Your task to perform on an android device: open app "Spotify" (install if not already installed) and go to login screen Image 0: 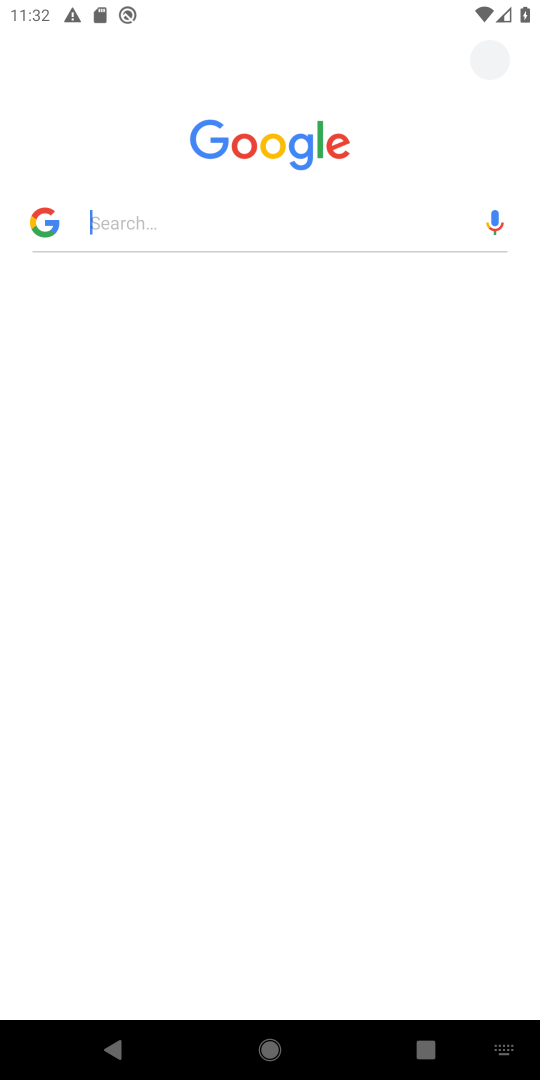
Step 0: drag from (263, 917) to (257, 706)
Your task to perform on an android device: open app "Spotify" (install if not already installed) and go to login screen Image 1: 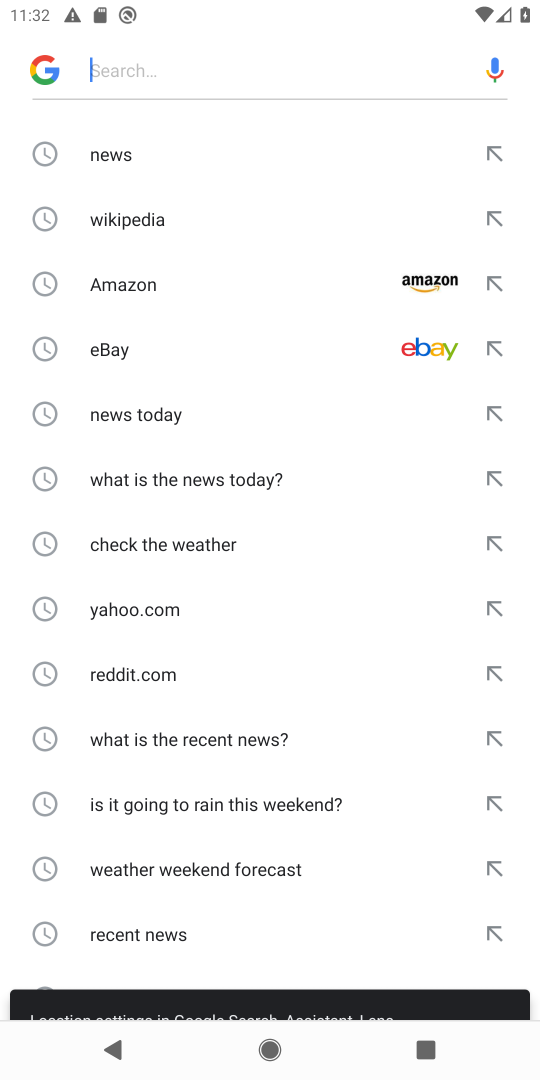
Step 1: press home button
Your task to perform on an android device: open app "Spotify" (install if not already installed) and go to login screen Image 2: 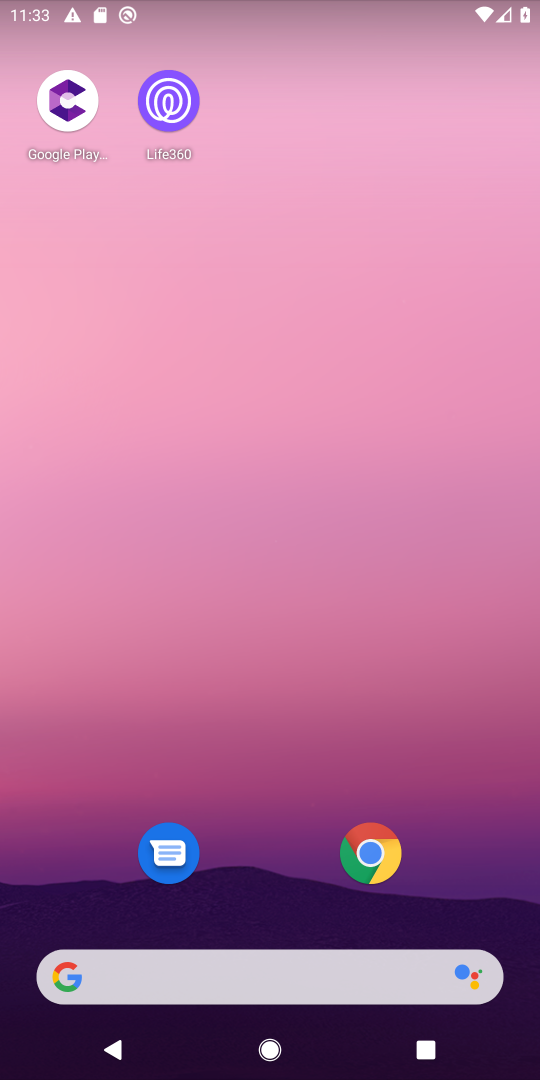
Step 2: drag from (247, 893) to (231, 281)
Your task to perform on an android device: open app "Spotify" (install if not already installed) and go to login screen Image 3: 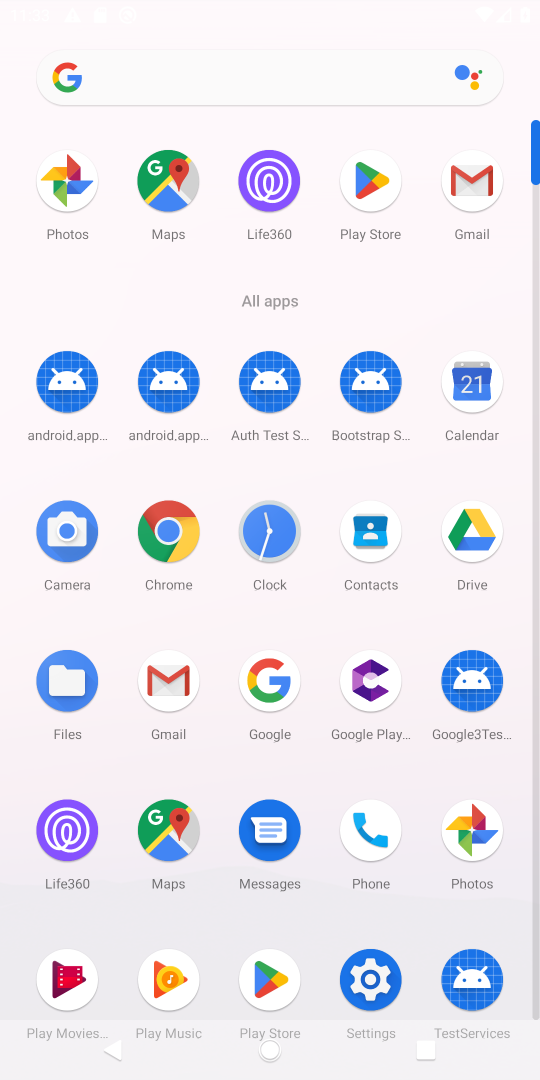
Step 3: click (358, 168)
Your task to perform on an android device: open app "Spotify" (install if not already installed) and go to login screen Image 4: 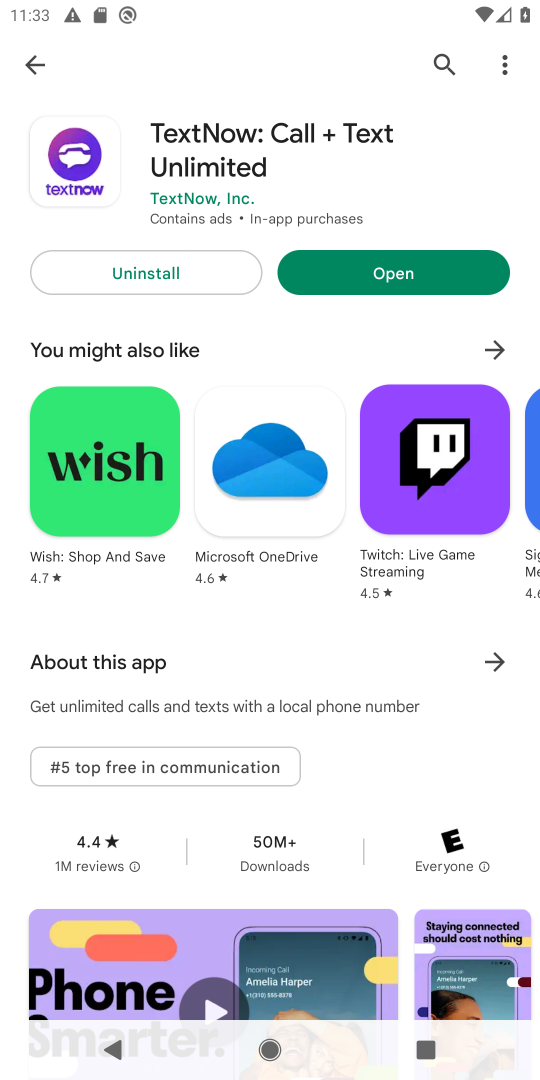
Step 4: click (30, 48)
Your task to perform on an android device: open app "Spotify" (install if not already installed) and go to login screen Image 5: 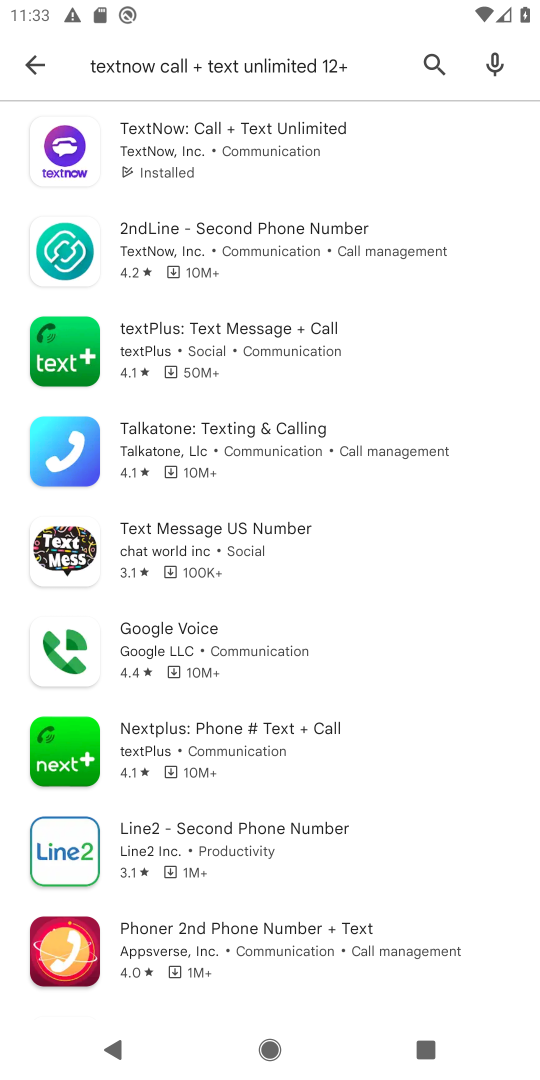
Step 5: click (47, 59)
Your task to perform on an android device: open app "Spotify" (install if not already installed) and go to login screen Image 6: 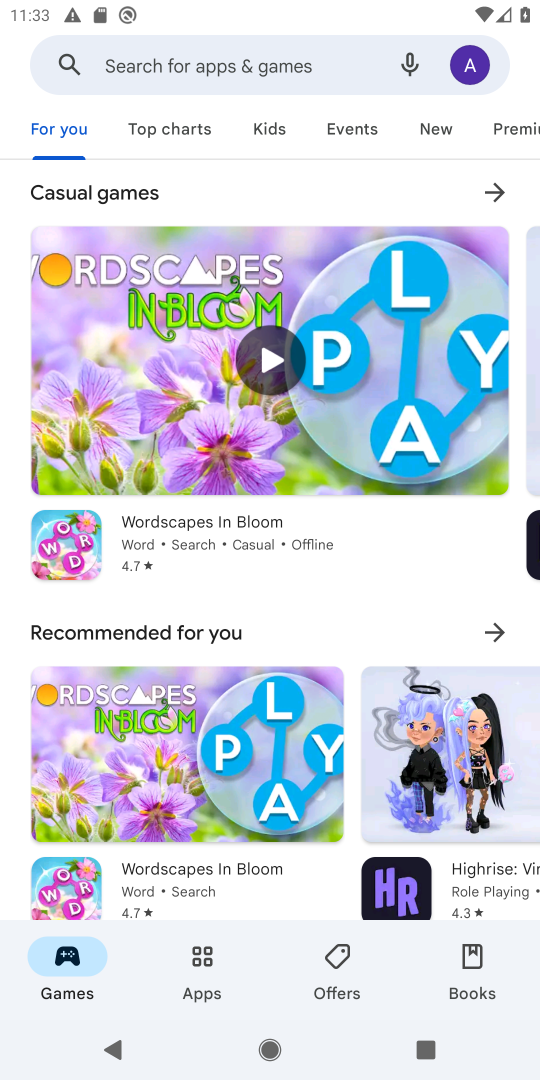
Step 6: click (216, 52)
Your task to perform on an android device: open app "Spotify" (install if not already installed) and go to login screen Image 7: 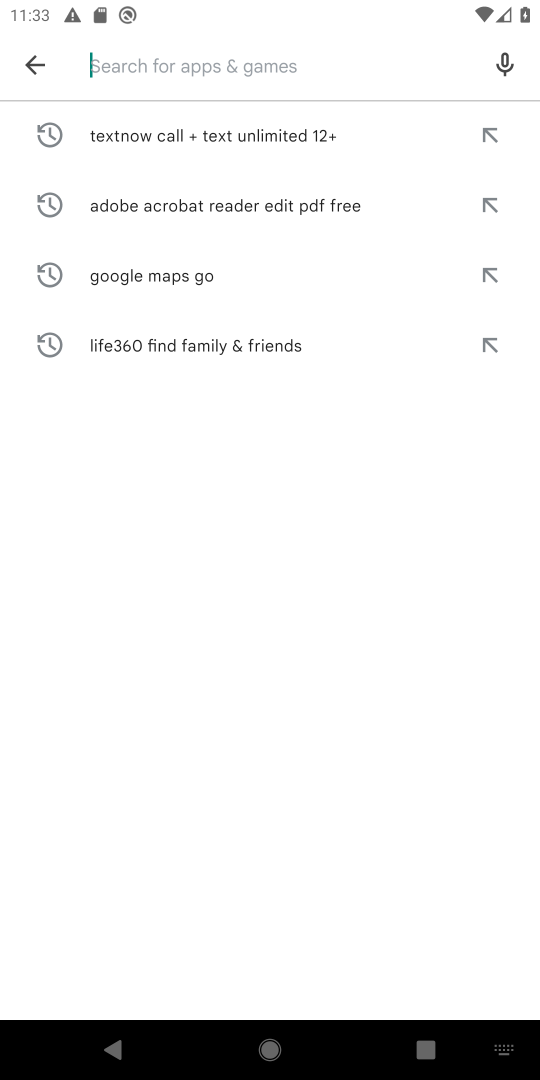
Step 7: type "spotify "
Your task to perform on an android device: open app "Spotify" (install if not already installed) and go to login screen Image 8: 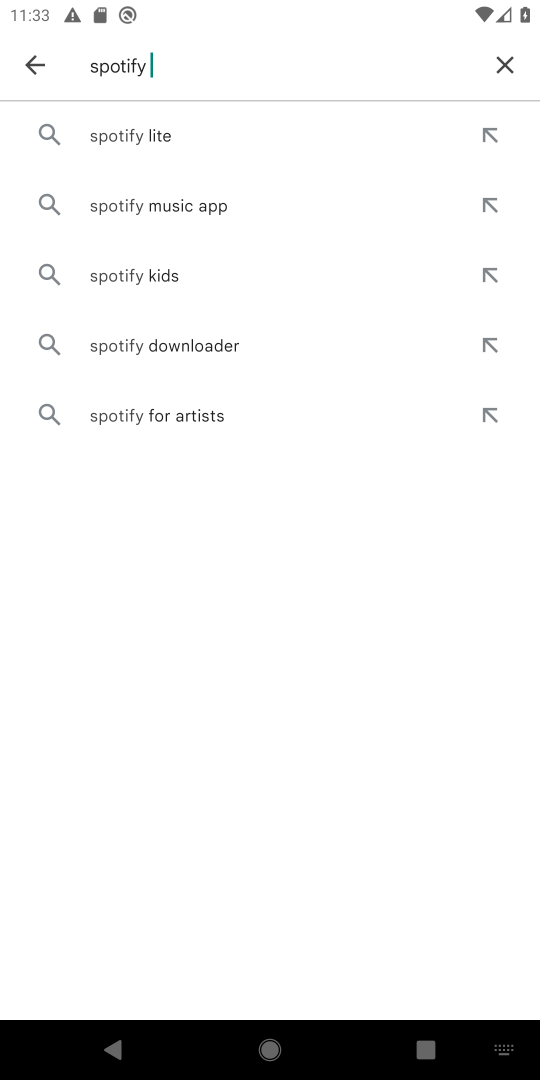
Step 8: click (194, 210)
Your task to perform on an android device: open app "Spotify" (install if not already installed) and go to login screen Image 9: 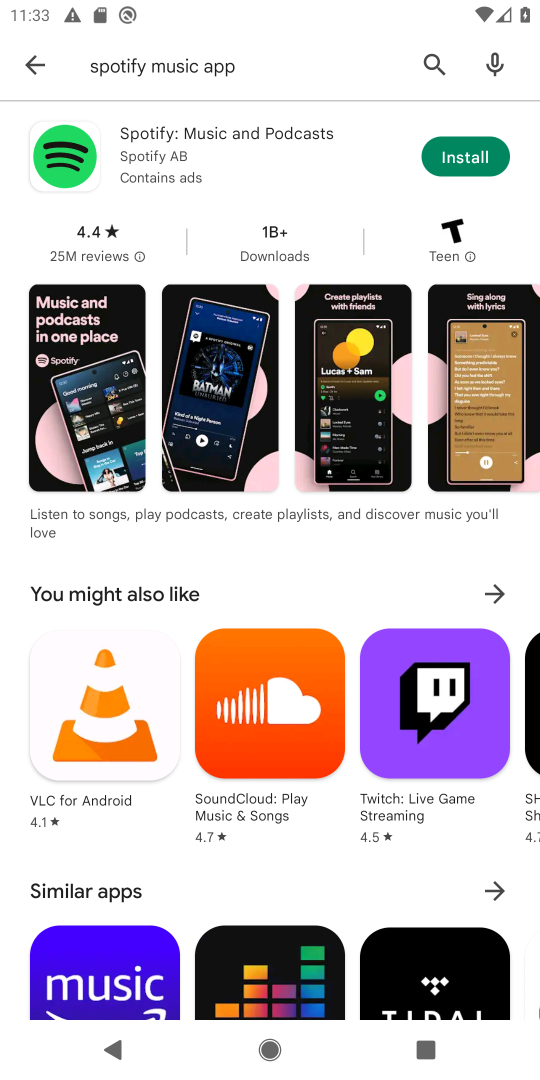
Step 9: click (485, 154)
Your task to perform on an android device: open app "Spotify" (install if not already installed) and go to login screen Image 10: 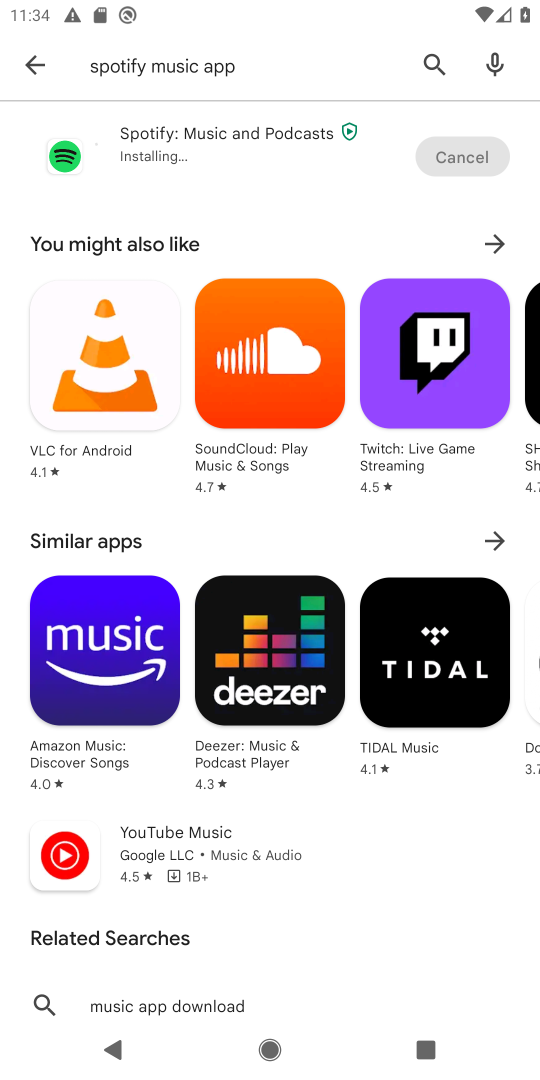
Step 10: task complete